Your task to perform on an android device: toggle wifi Image 0: 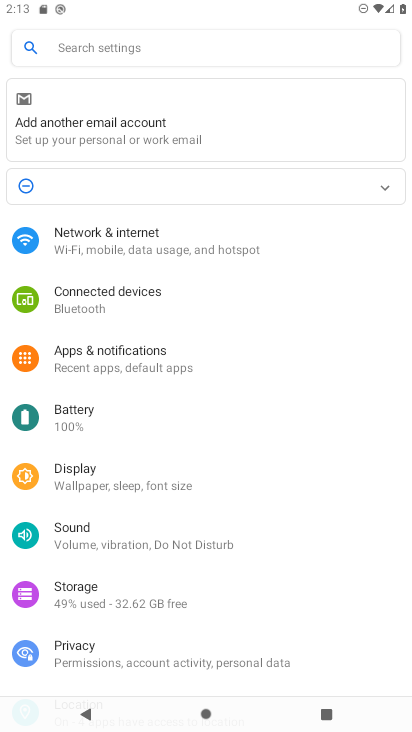
Step 0: click (110, 235)
Your task to perform on an android device: toggle wifi Image 1: 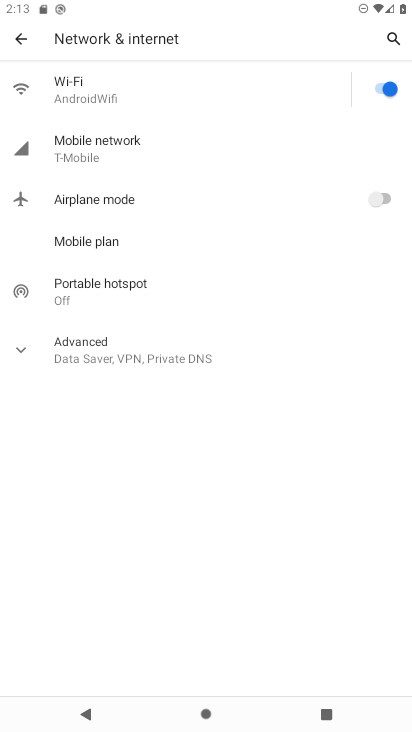
Step 1: click (376, 86)
Your task to perform on an android device: toggle wifi Image 2: 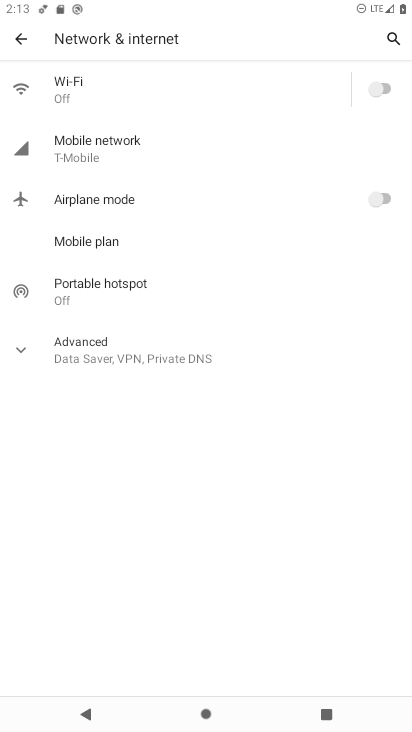
Step 2: task complete